Your task to perform on an android device: install app "PlayWell" Image 0: 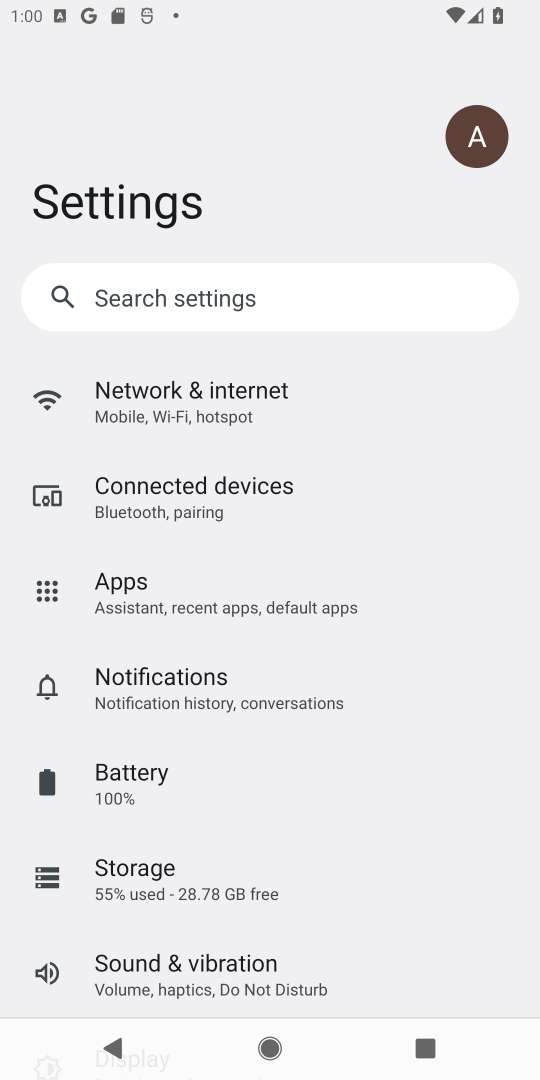
Step 0: press home button
Your task to perform on an android device: install app "PlayWell" Image 1: 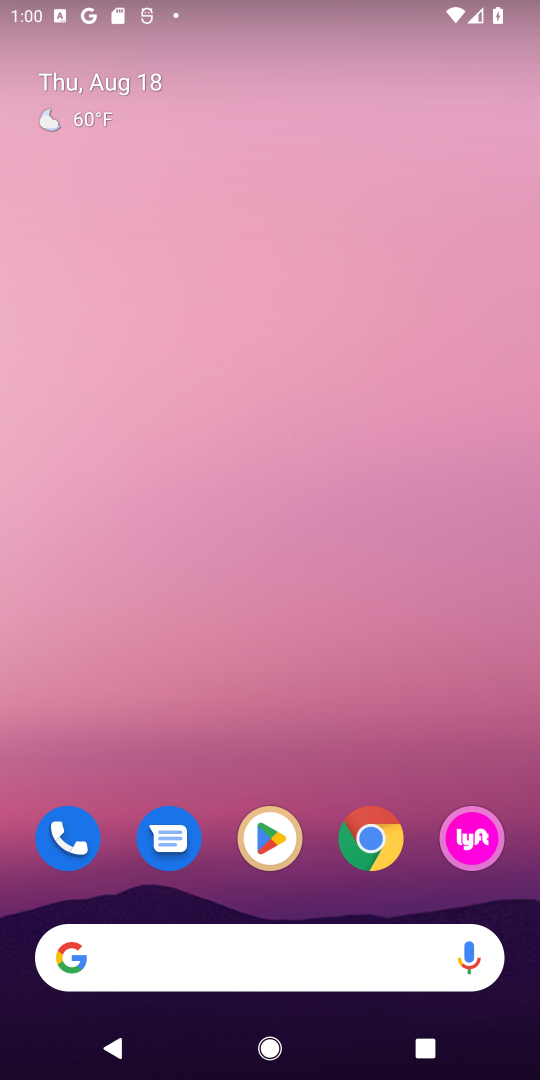
Step 1: click (263, 844)
Your task to perform on an android device: install app "PlayWell" Image 2: 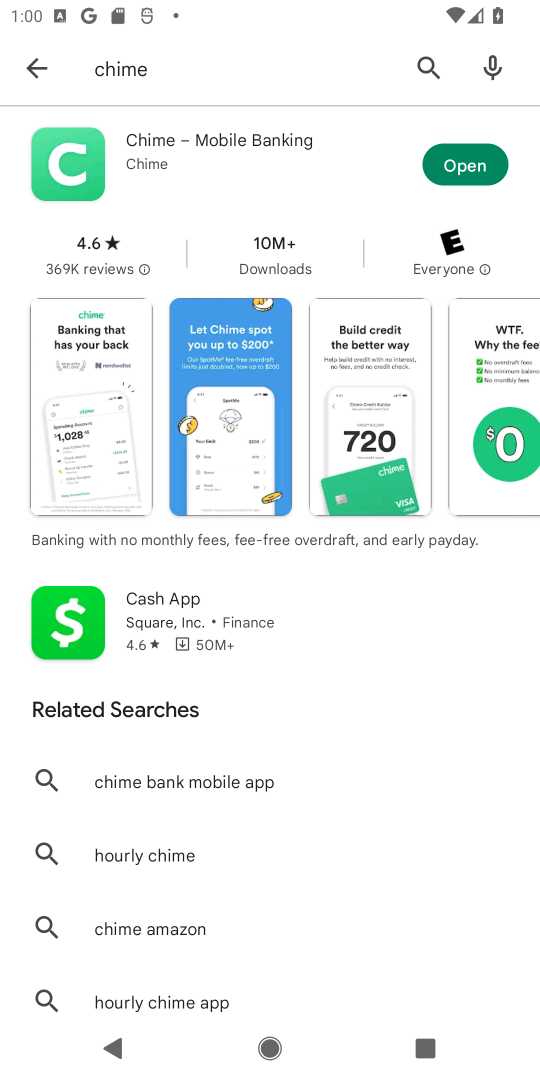
Step 2: click (419, 56)
Your task to perform on an android device: install app "PlayWell" Image 3: 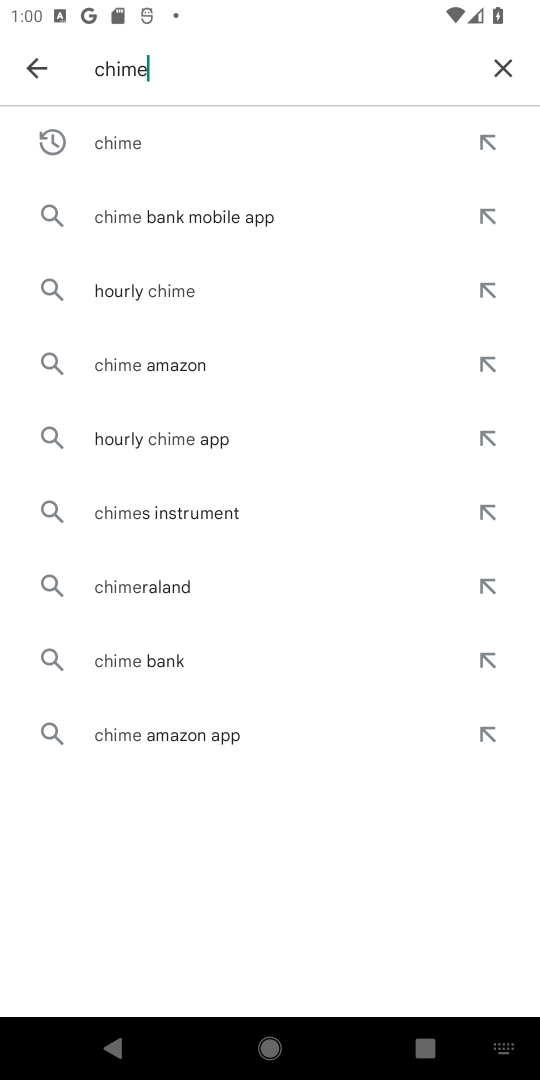
Step 3: click (500, 61)
Your task to perform on an android device: install app "PlayWell" Image 4: 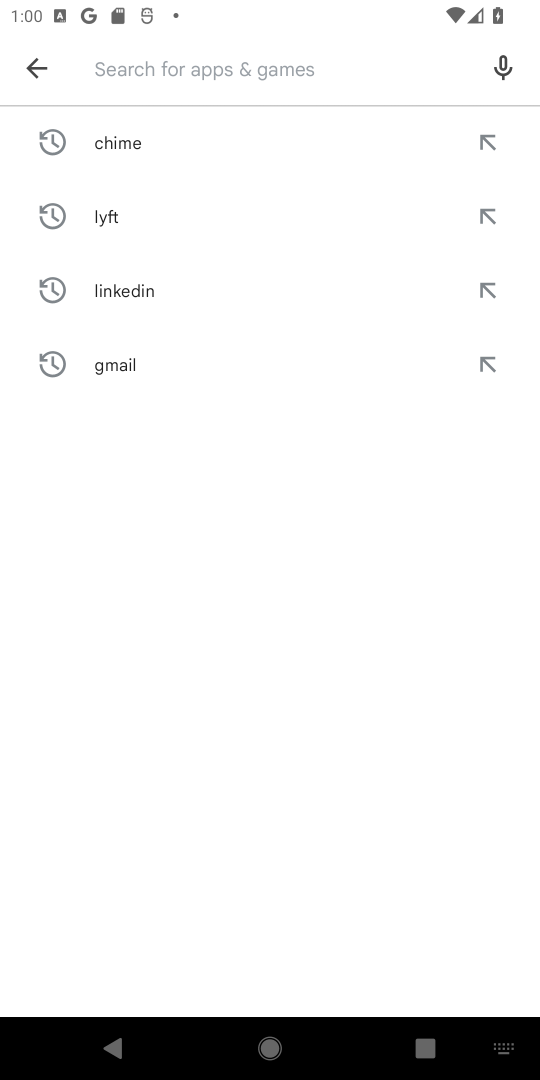
Step 4: type "PlayWell"
Your task to perform on an android device: install app "PlayWell" Image 5: 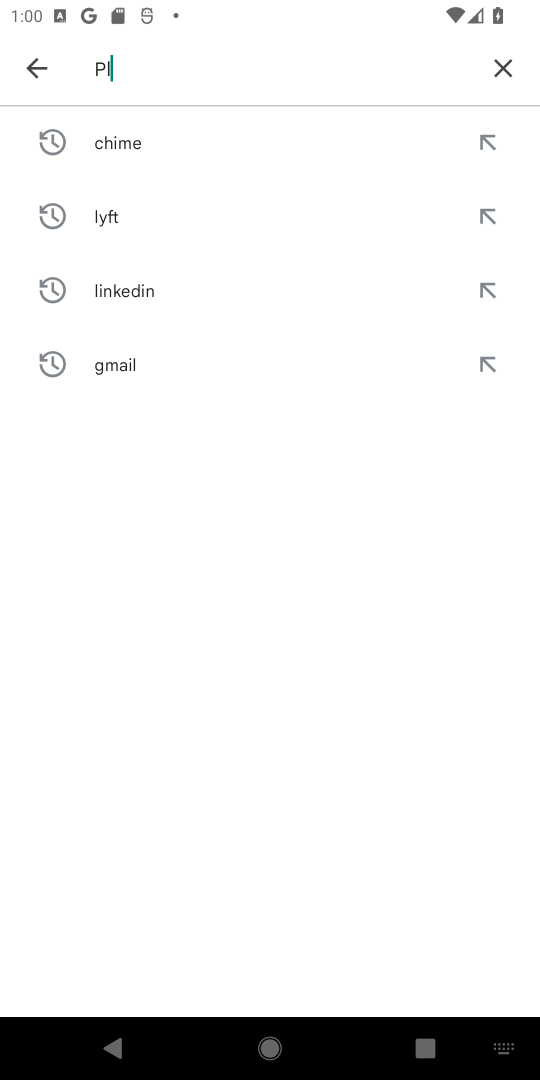
Step 5: type ""
Your task to perform on an android device: install app "PlayWell" Image 6: 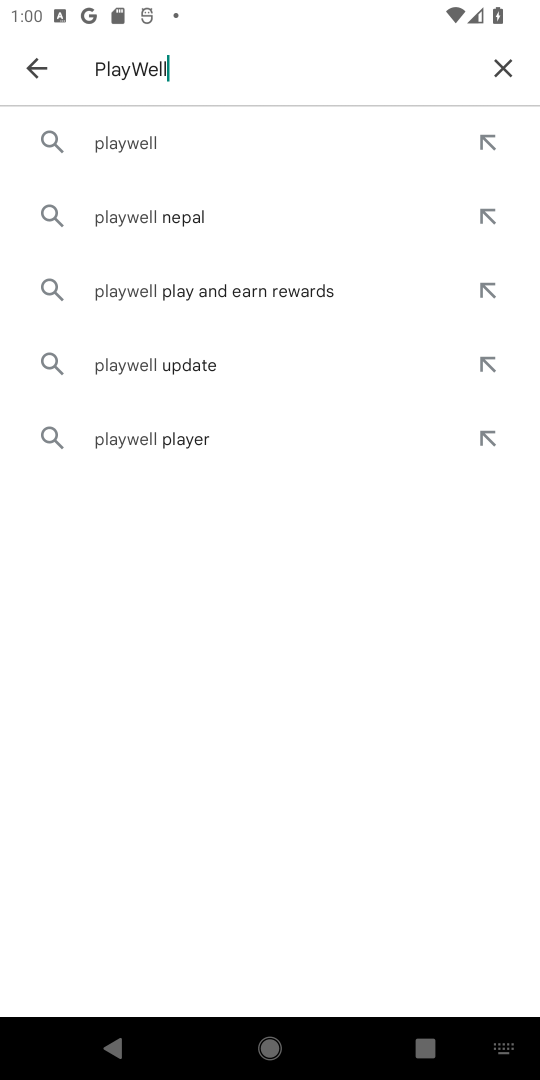
Step 6: click (116, 149)
Your task to perform on an android device: install app "PlayWell" Image 7: 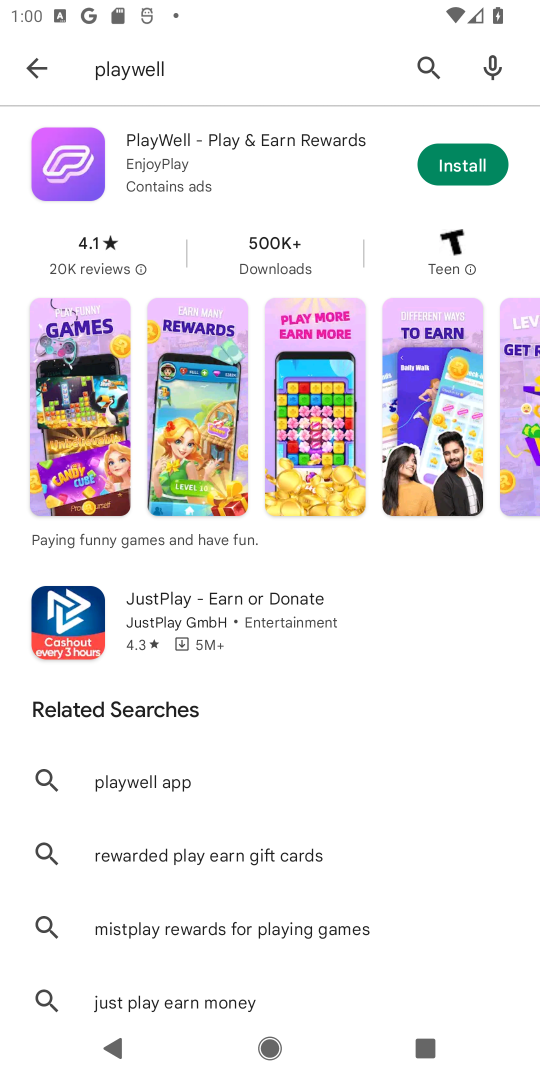
Step 7: click (445, 157)
Your task to perform on an android device: install app "PlayWell" Image 8: 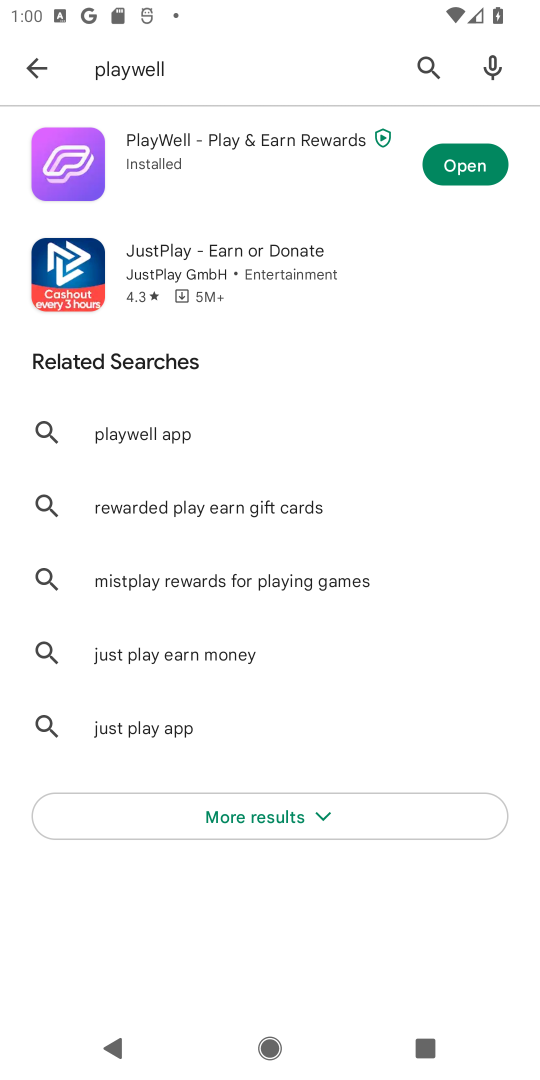
Step 8: task complete